Your task to perform on an android device: open app "Messenger Lite" (install if not already installed) Image 0: 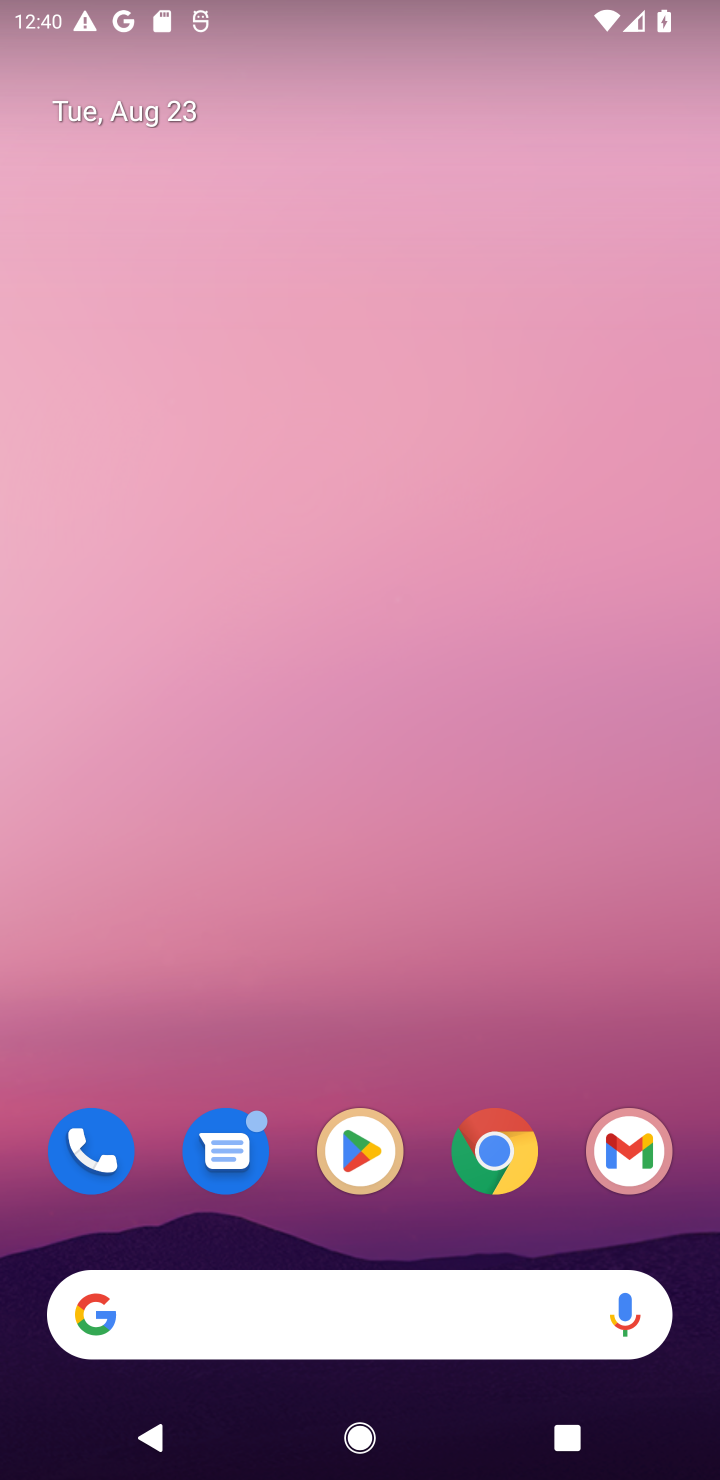
Step 0: press back button
Your task to perform on an android device: open app "Messenger Lite" (install if not already installed) Image 1: 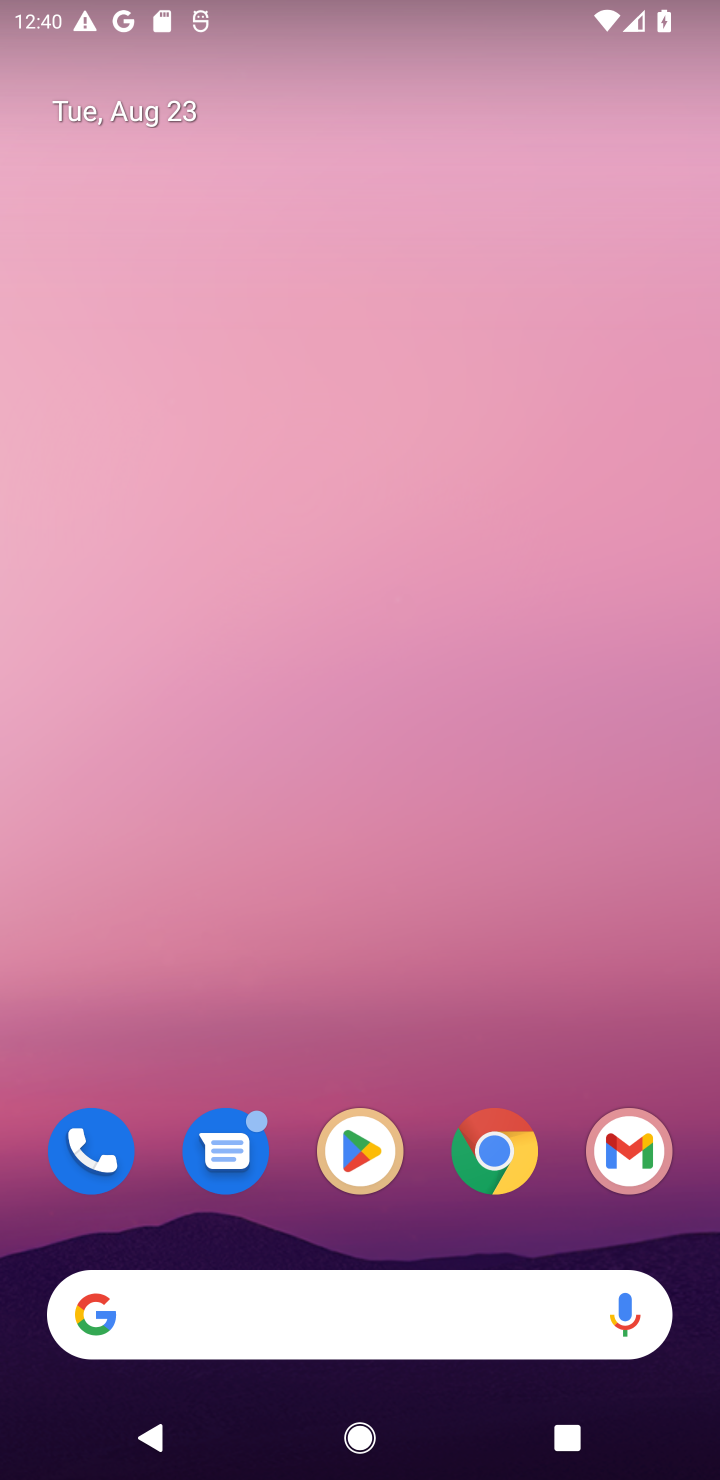
Step 1: click (353, 1132)
Your task to perform on an android device: open app "Messenger Lite" (install if not already installed) Image 2: 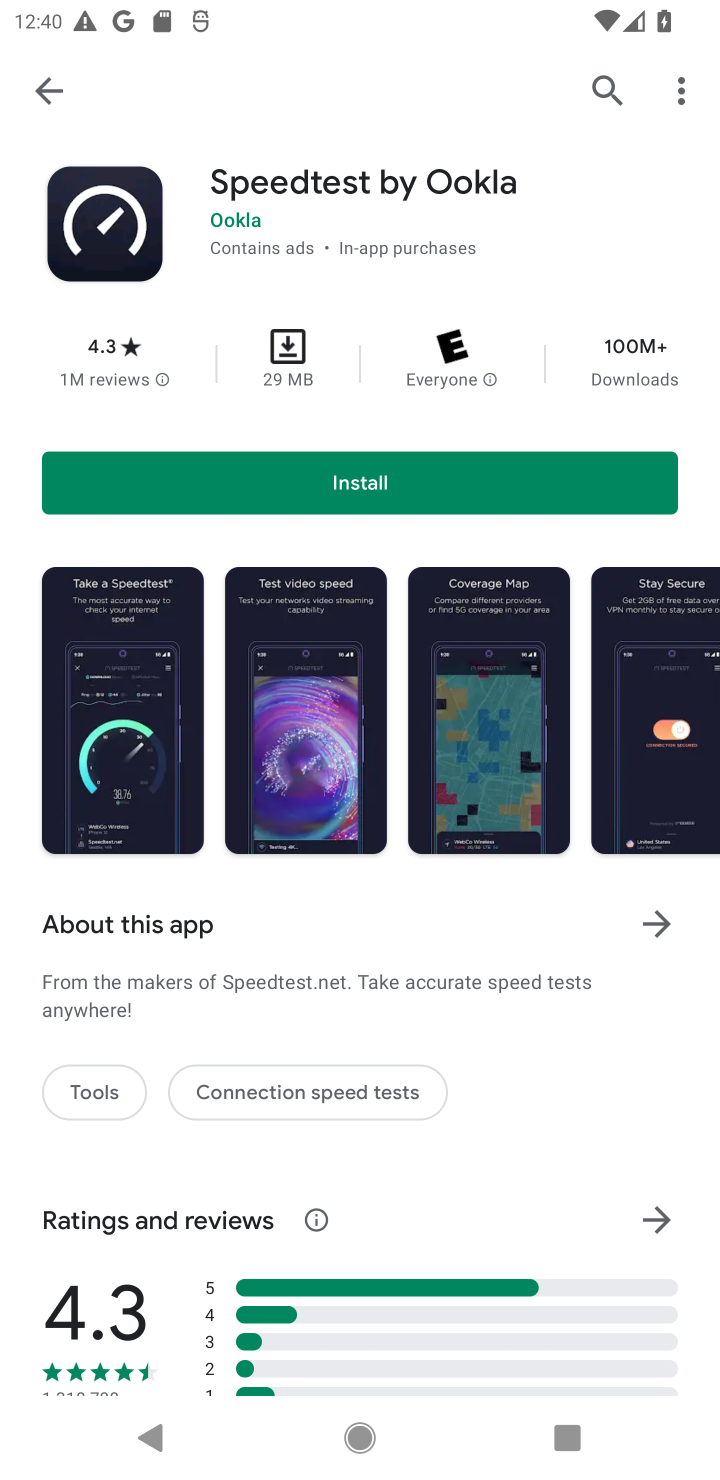
Step 2: click (595, 82)
Your task to perform on an android device: open app "Messenger Lite" (install if not already installed) Image 3: 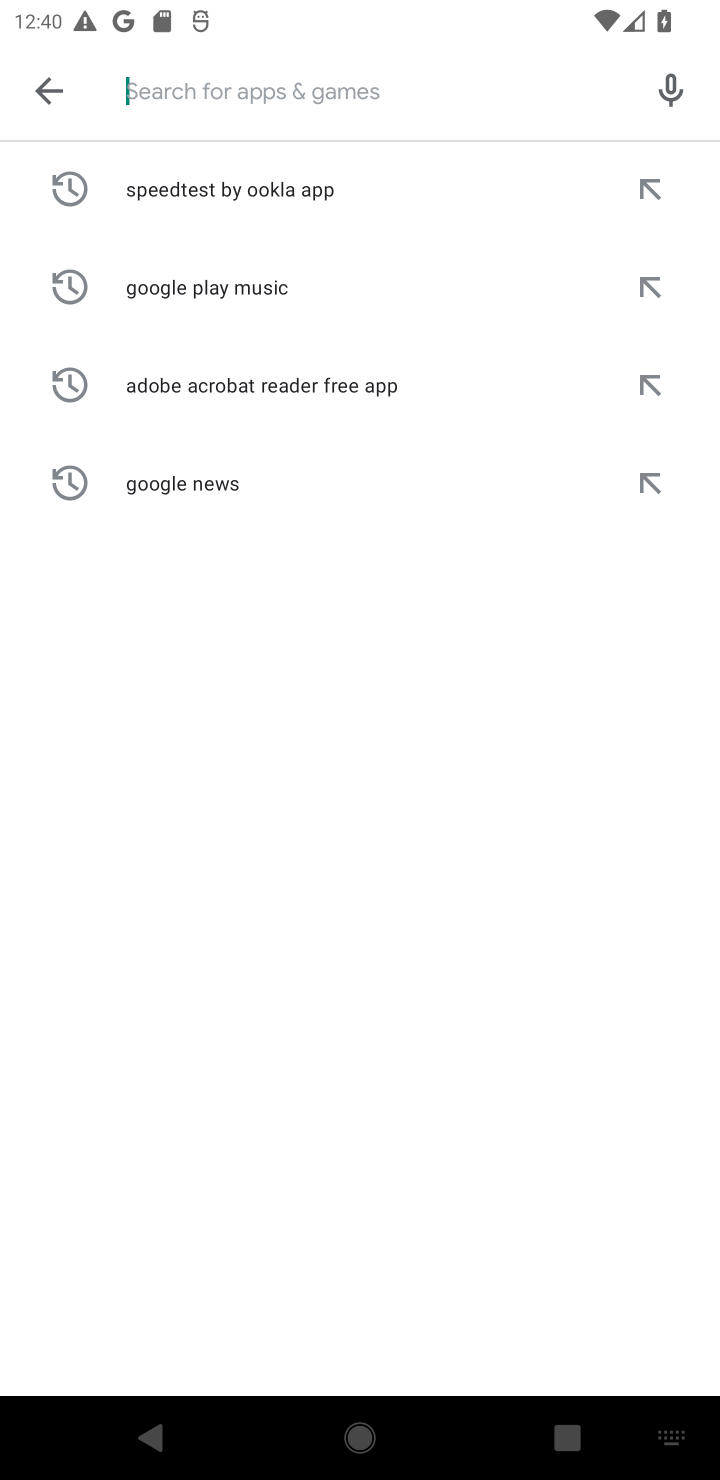
Step 3: type "Messenger Lite"
Your task to perform on an android device: open app "Messenger Lite" (install if not already installed) Image 4: 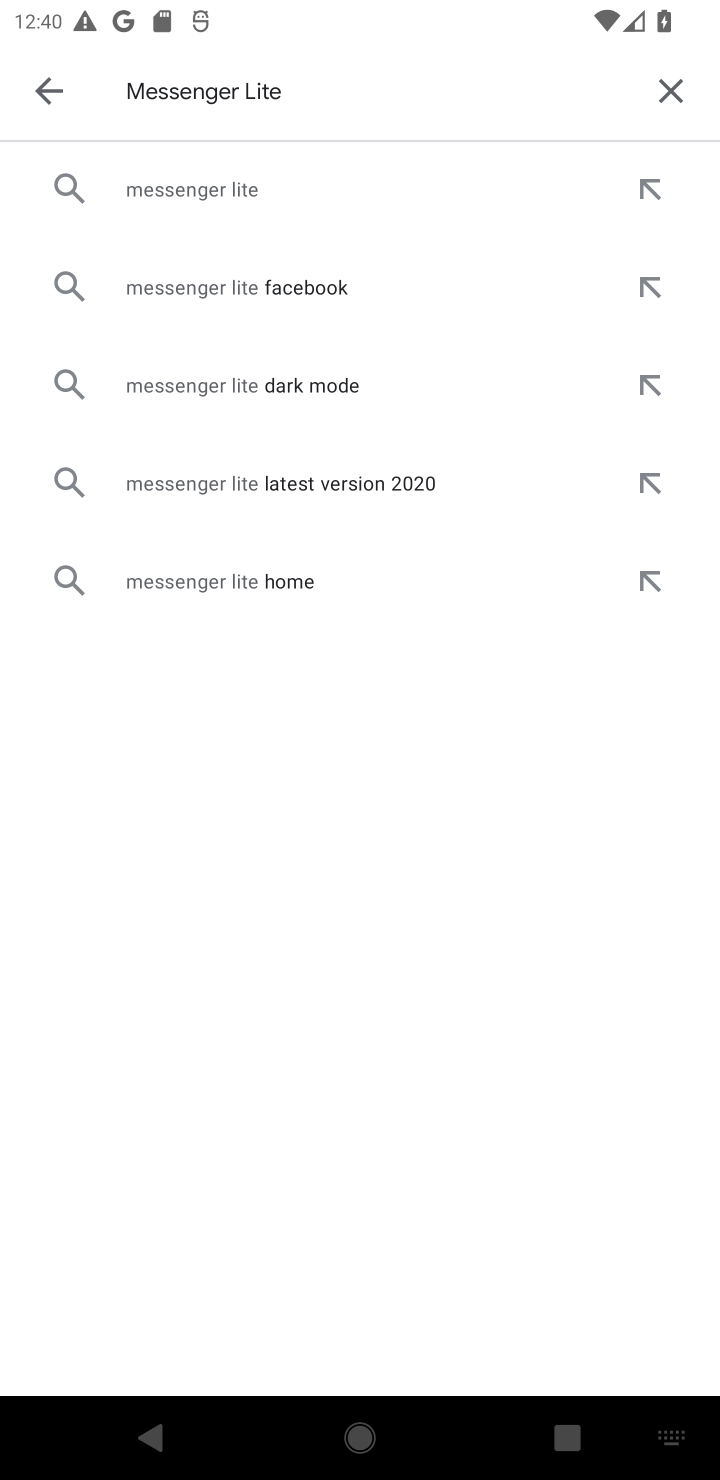
Step 4: click (253, 183)
Your task to perform on an android device: open app "Messenger Lite" (install if not already installed) Image 5: 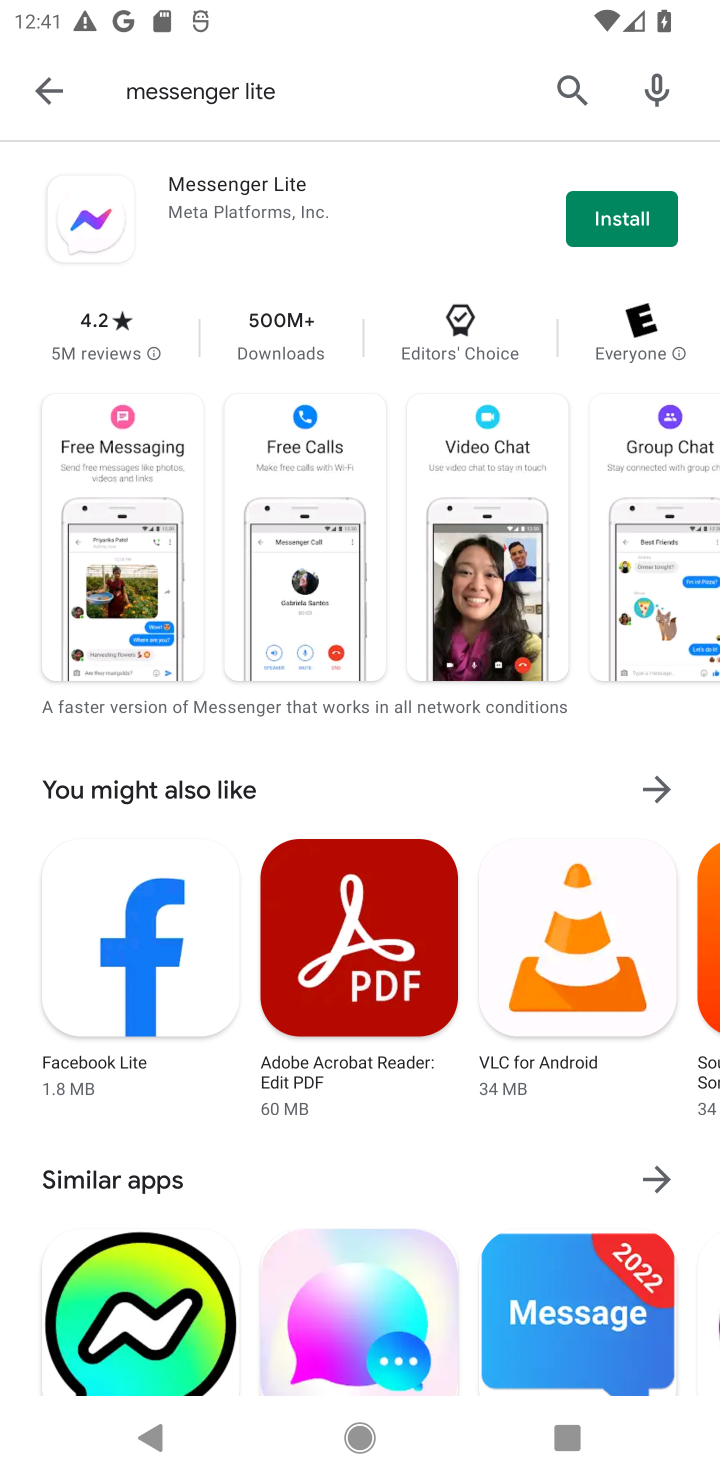
Step 5: click (621, 198)
Your task to perform on an android device: open app "Messenger Lite" (install if not already installed) Image 6: 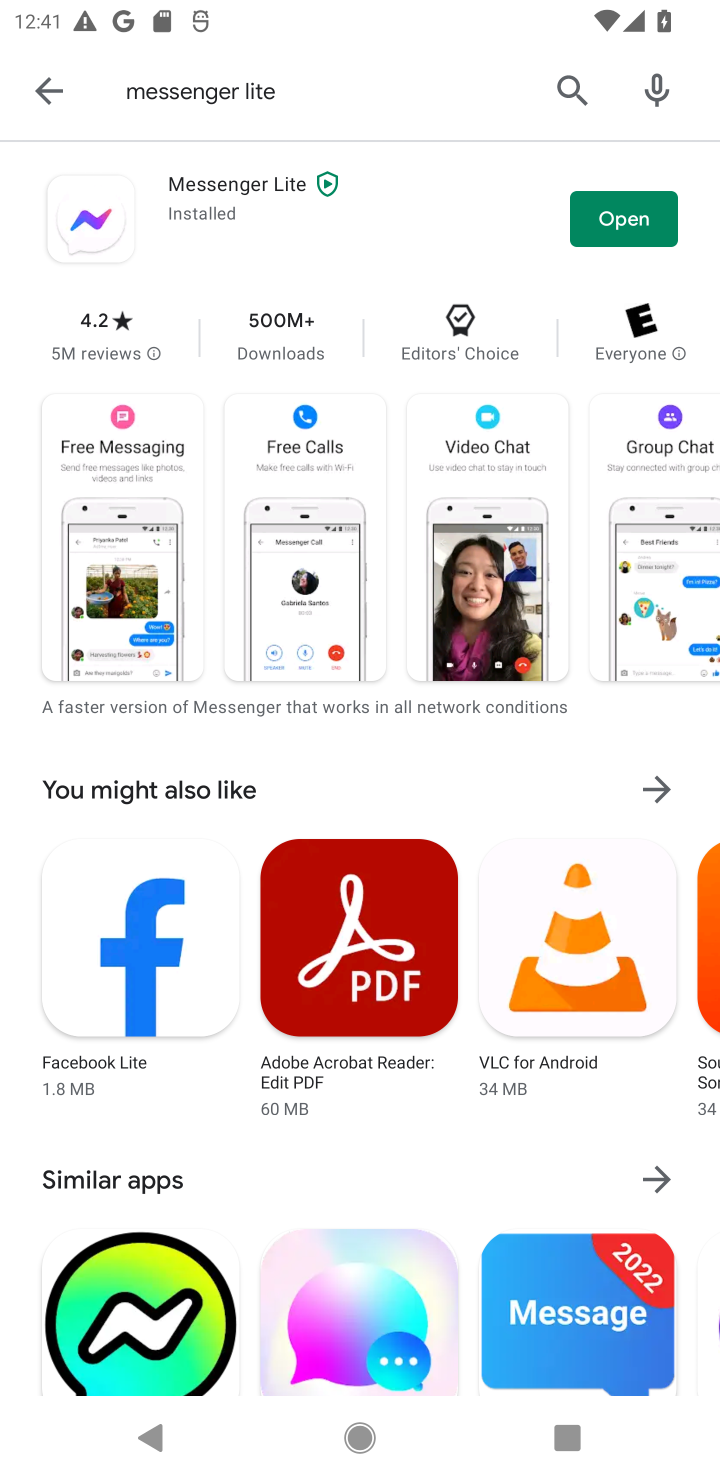
Step 6: click (606, 223)
Your task to perform on an android device: open app "Messenger Lite" (install if not already installed) Image 7: 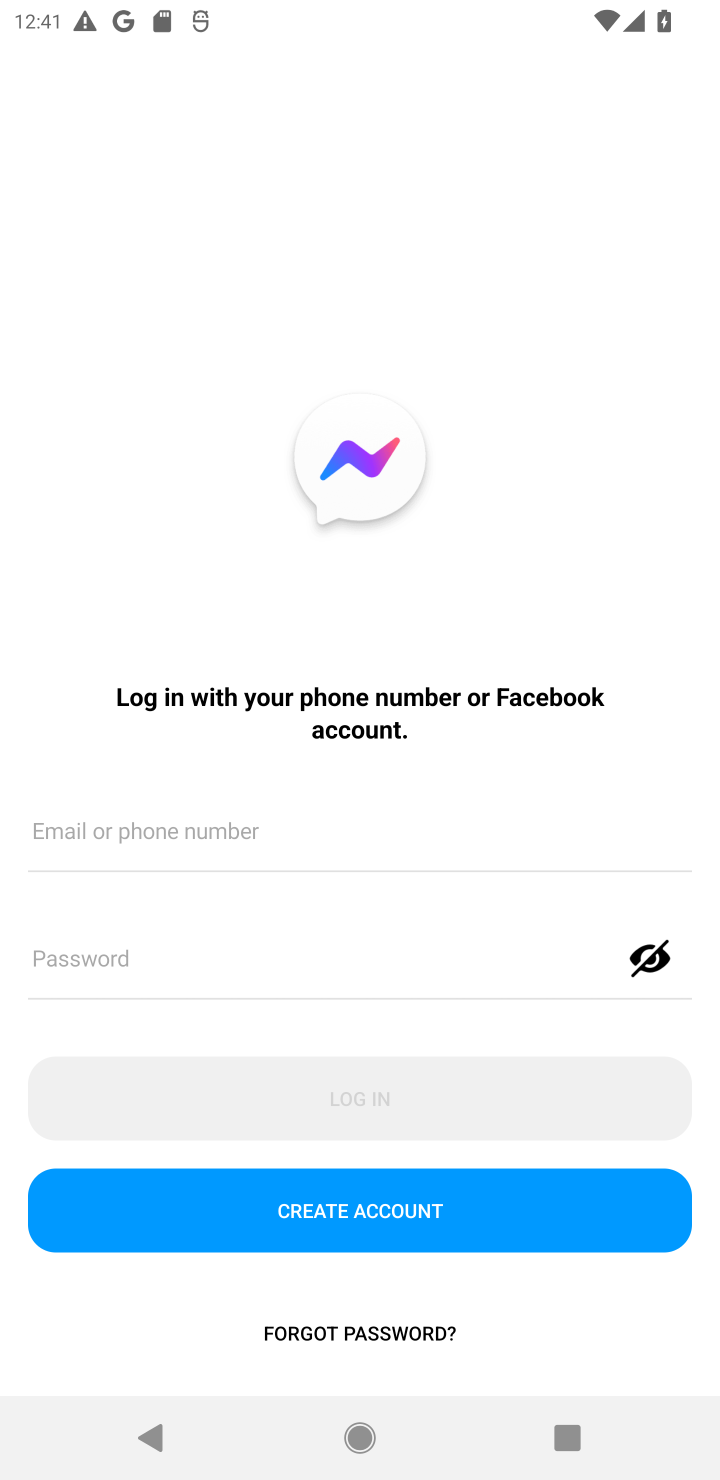
Step 7: task complete